Your task to perform on an android device: install app "Facebook Messenger" Image 0: 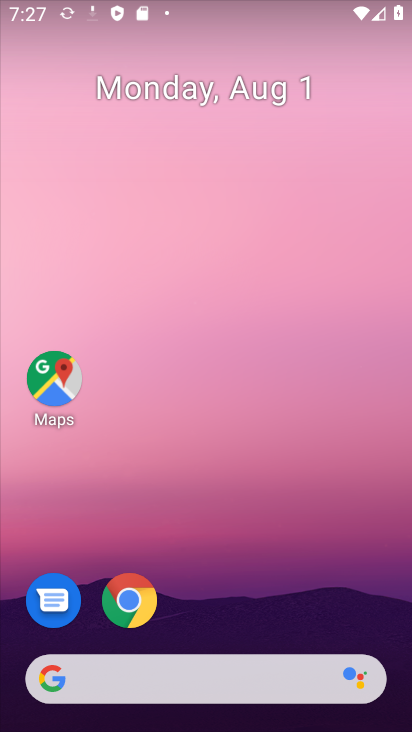
Step 0: drag from (219, 601) to (176, 10)
Your task to perform on an android device: install app "Facebook Messenger" Image 1: 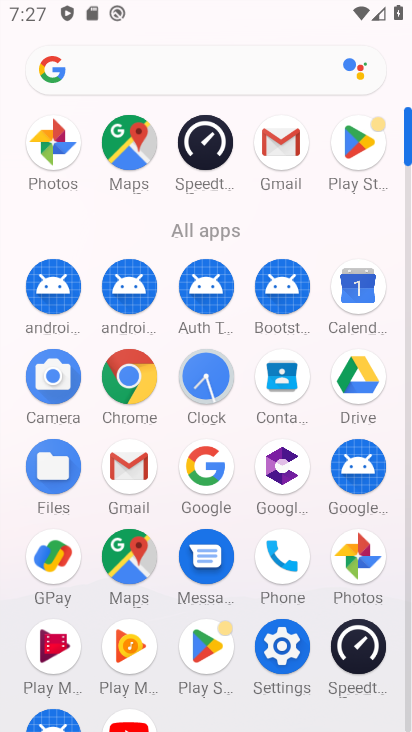
Step 1: click (350, 153)
Your task to perform on an android device: install app "Facebook Messenger" Image 2: 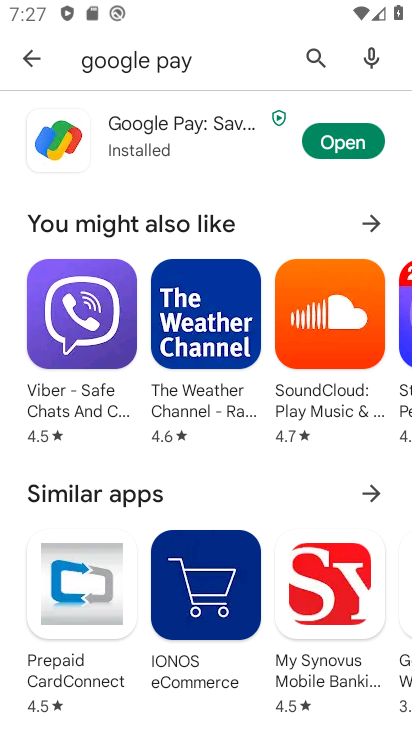
Step 2: click (27, 57)
Your task to perform on an android device: install app "Facebook Messenger" Image 3: 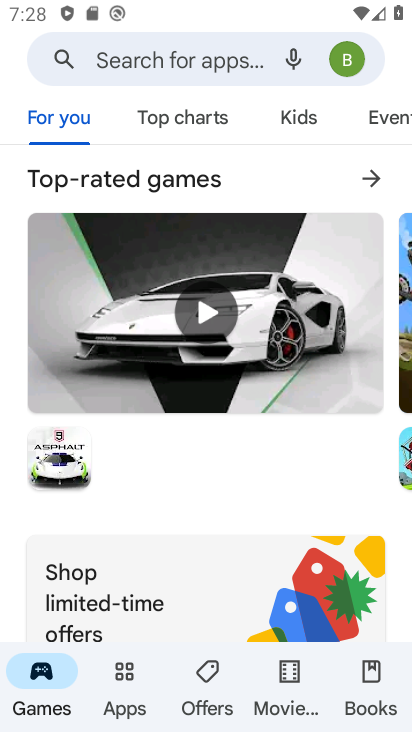
Step 3: click (181, 44)
Your task to perform on an android device: install app "Facebook Messenger" Image 4: 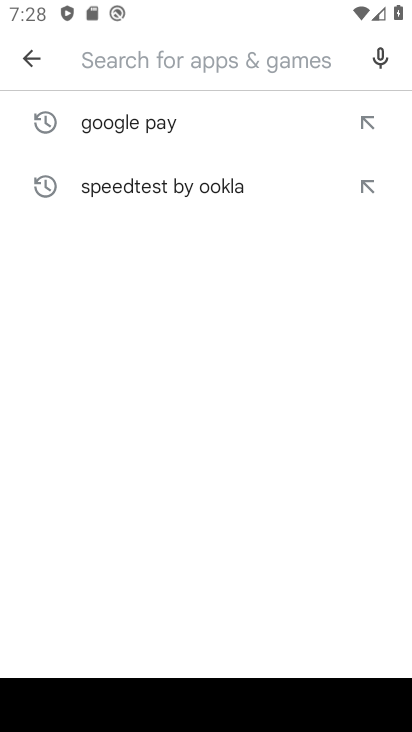
Step 4: type "Facebook Messenger"
Your task to perform on an android device: install app "Facebook Messenger" Image 5: 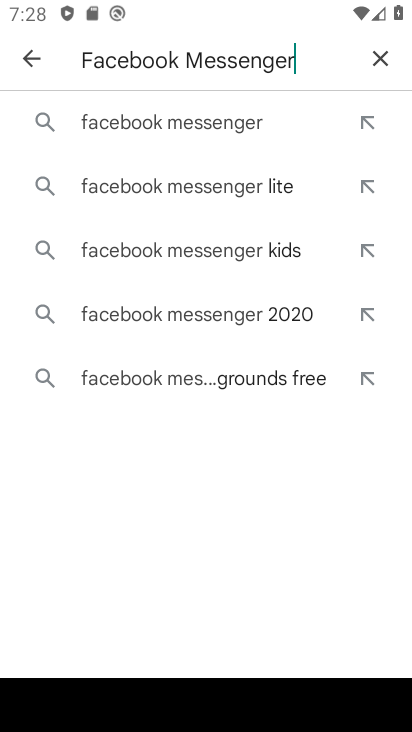
Step 5: click (138, 120)
Your task to perform on an android device: install app "Facebook Messenger" Image 6: 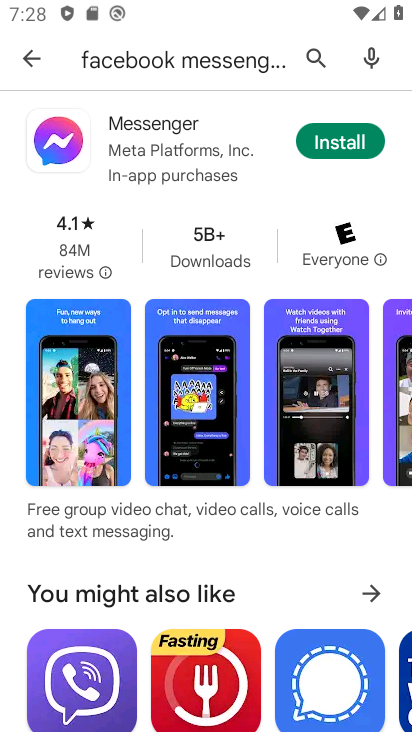
Step 6: click (336, 151)
Your task to perform on an android device: install app "Facebook Messenger" Image 7: 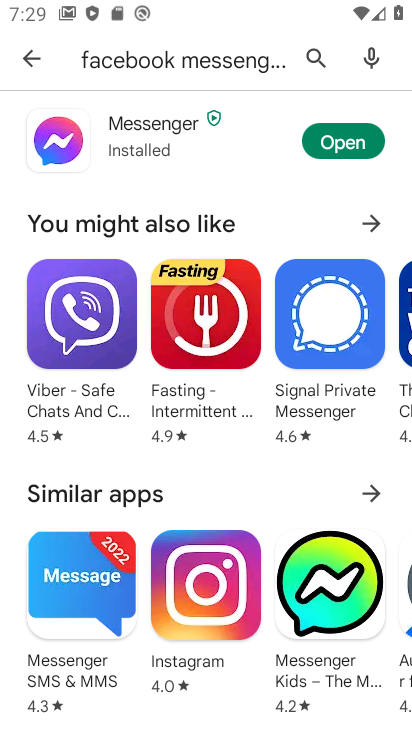
Step 7: task complete